Your task to perform on an android device: manage bookmarks in the chrome app Image 0: 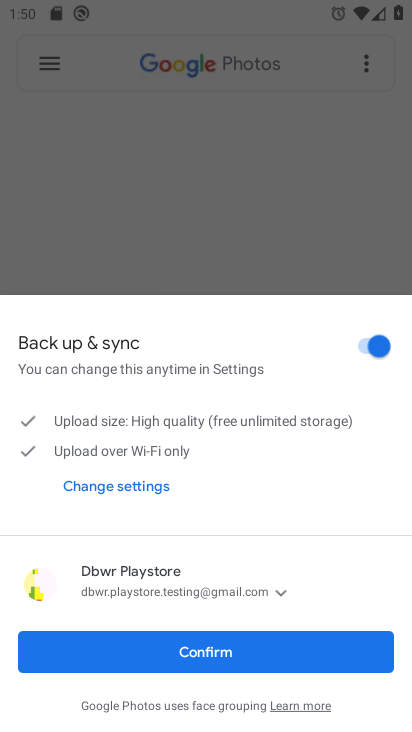
Step 0: press home button
Your task to perform on an android device: manage bookmarks in the chrome app Image 1: 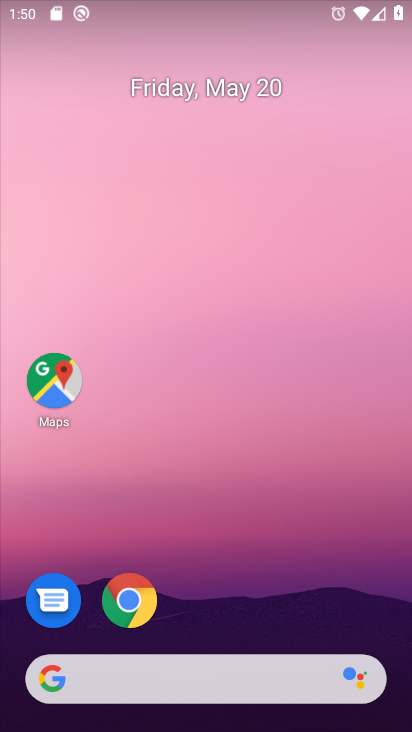
Step 1: click (137, 597)
Your task to perform on an android device: manage bookmarks in the chrome app Image 2: 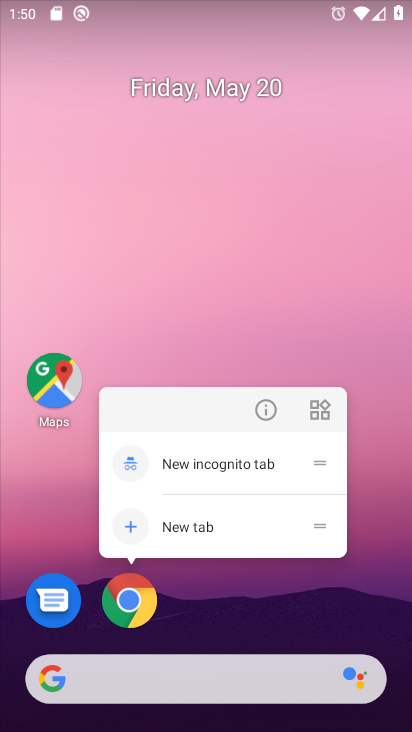
Step 2: click (137, 597)
Your task to perform on an android device: manage bookmarks in the chrome app Image 3: 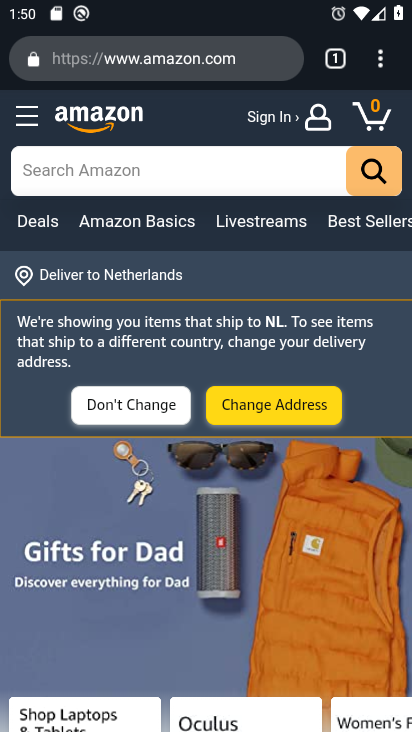
Step 3: click (385, 58)
Your task to perform on an android device: manage bookmarks in the chrome app Image 4: 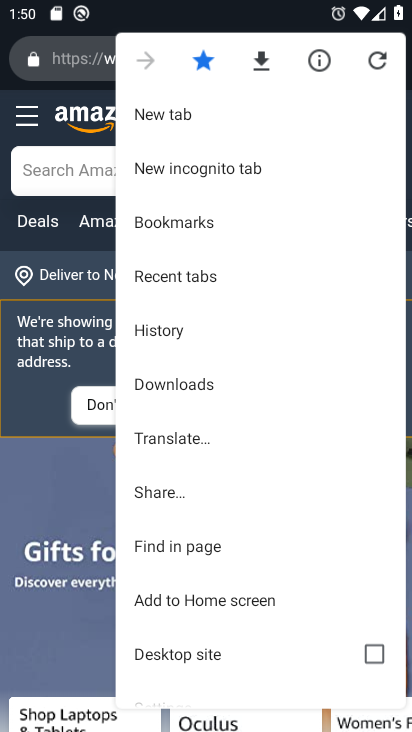
Step 4: click (201, 218)
Your task to perform on an android device: manage bookmarks in the chrome app Image 5: 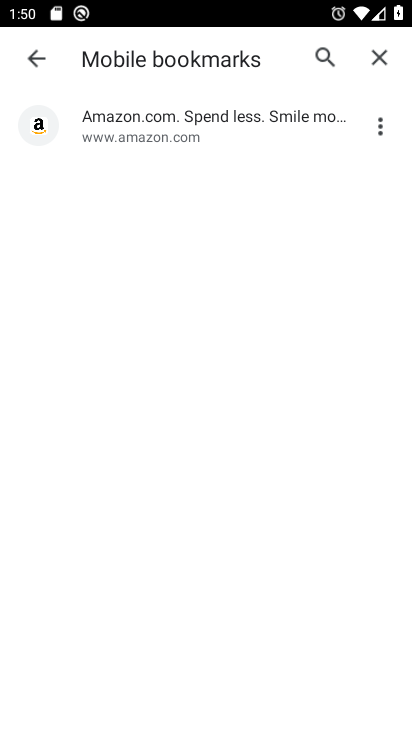
Step 5: click (377, 129)
Your task to perform on an android device: manage bookmarks in the chrome app Image 6: 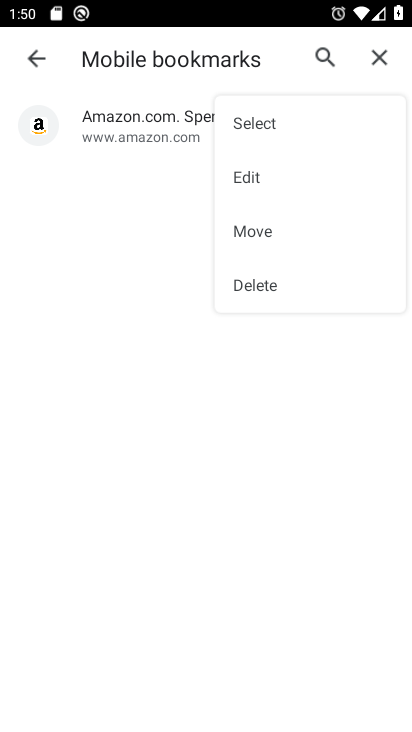
Step 6: click (266, 187)
Your task to perform on an android device: manage bookmarks in the chrome app Image 7: 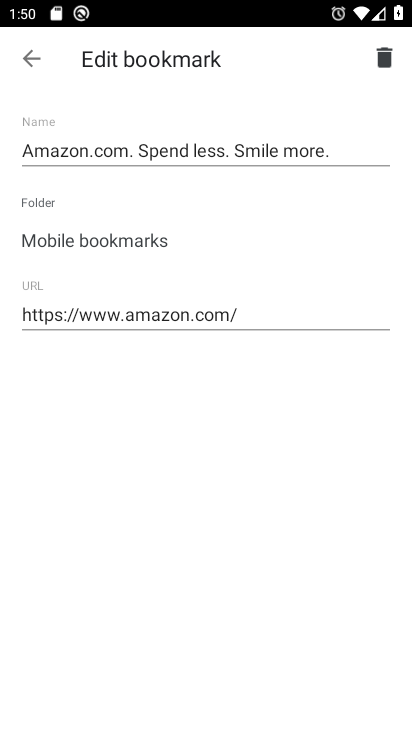
Step 7: click (281, 148)
Your task to perform on an android device: manage bookmarks in the chrome app Image 8: 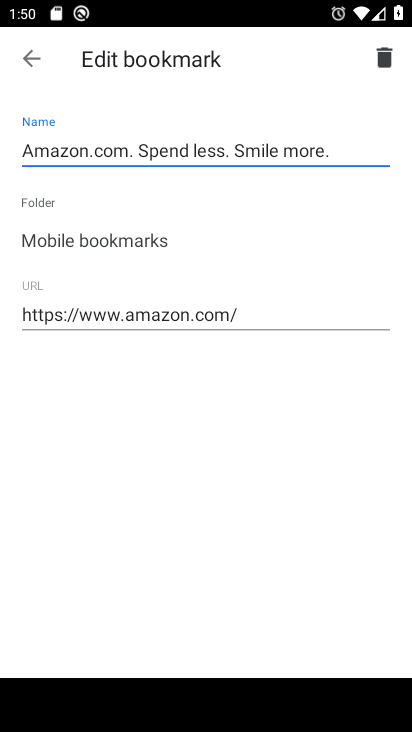
Step 8: click (255, 147)
Your task to perform on an android device: manage bookmarks in the chrome app Image 9: 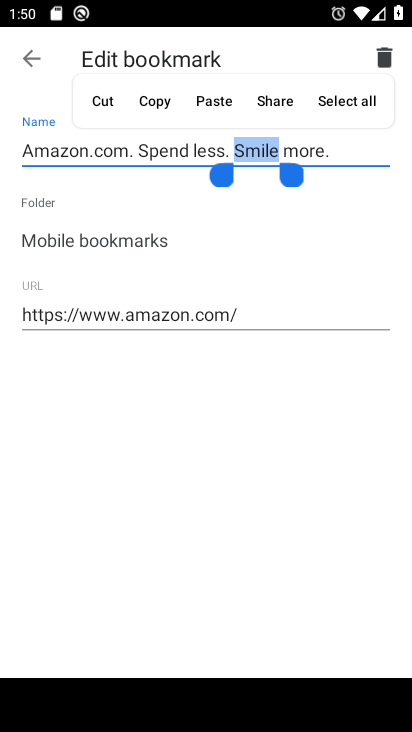
Step 9: type "  "
Your task to perform on an android device: manage bookmarks in the chrome app Image 10: 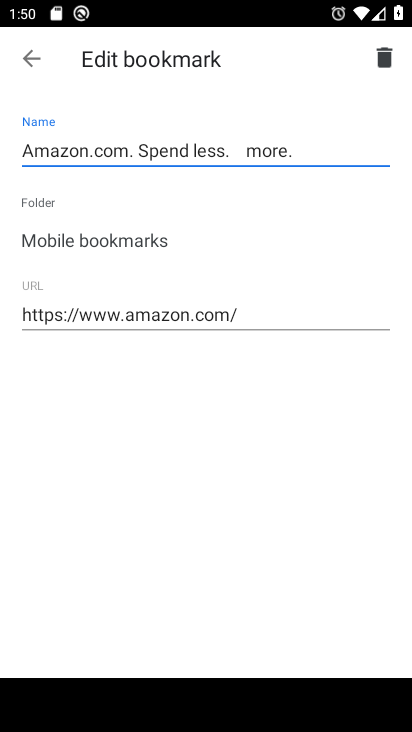
Step 10: click (29, 57)
Your task to perform on an android device: manage bookmarks in the chrome app Image 11: 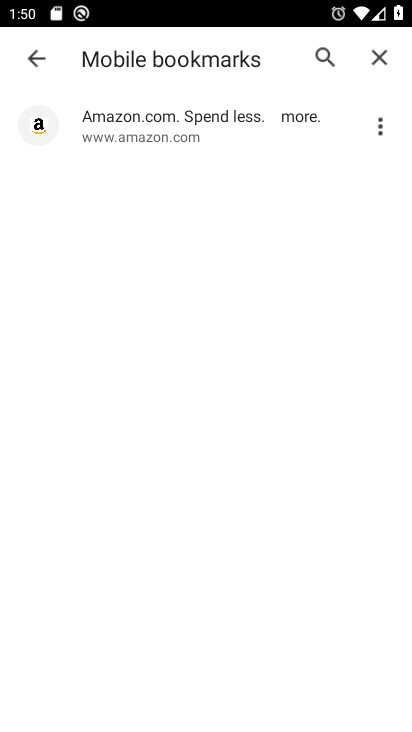
Step 11: task complete